Your task to perform on an android device: Go to Maps Image 0: 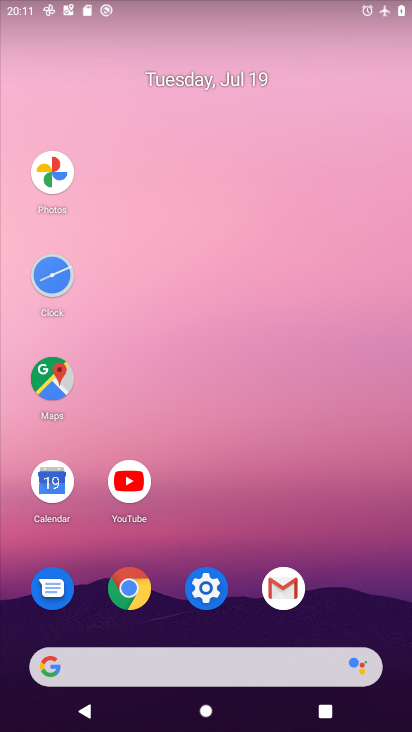
Step 0: click (43, 375)
Your task to perform on an android device: Go to Maps Image 1: 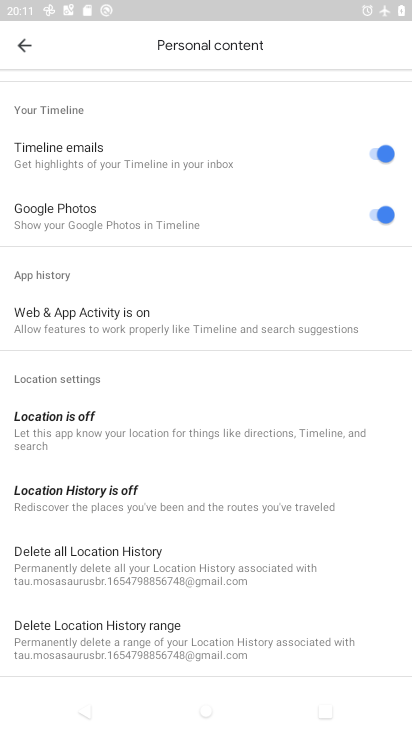
Step 1: click (25, 40)
Your task to perform on an android device: Go to Maps Image 2: 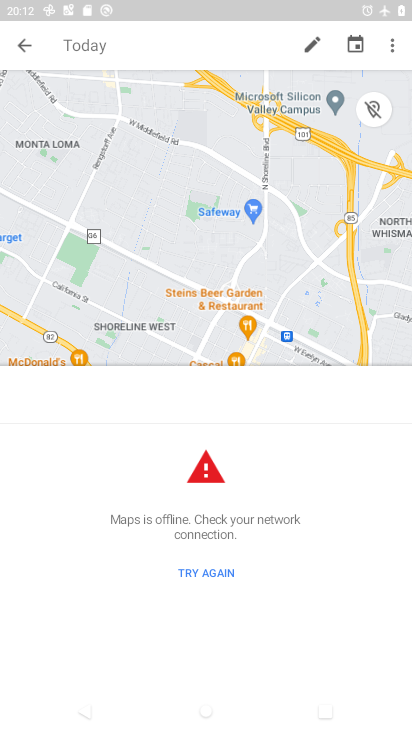
Step 2: click (32, 39)
Your task to perform on an android device: Go to Maps Image 3: 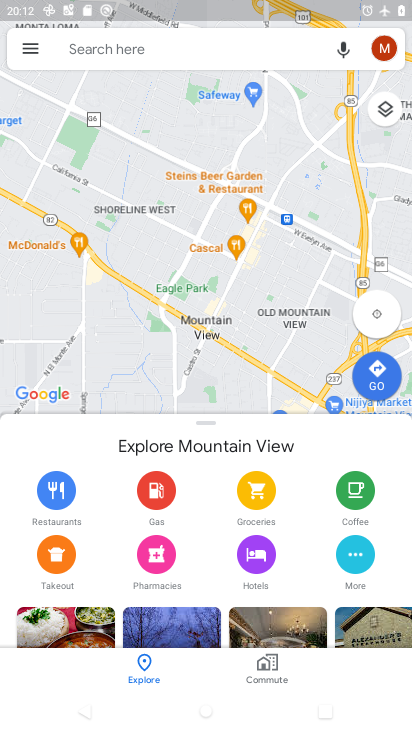
Step 3: task complete